Your task to perform on an android device: Go to settings Image 0: 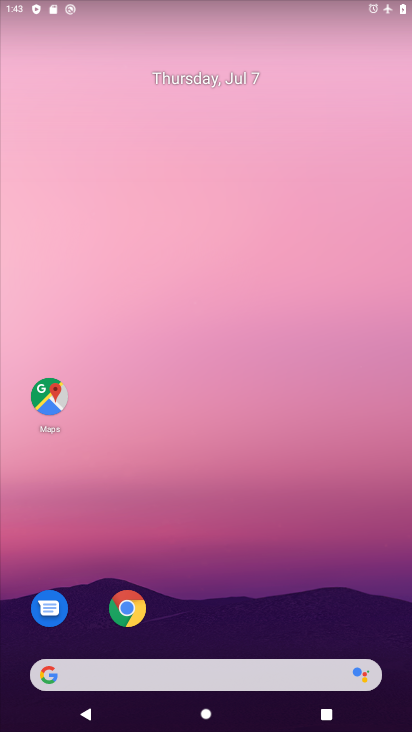
Step 0: drag from (241, 716) to (239, 127)
Your task to perform on an android device: Go to settings Image 1: 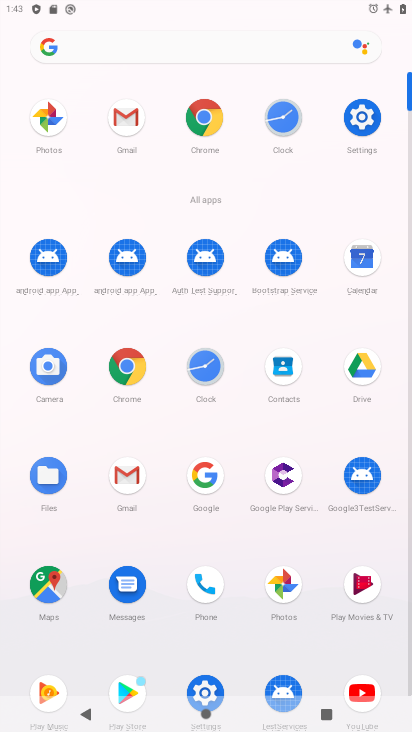
Step 1: click (356, 109)
Your task to perform on an android device: Go to settings Image 2: 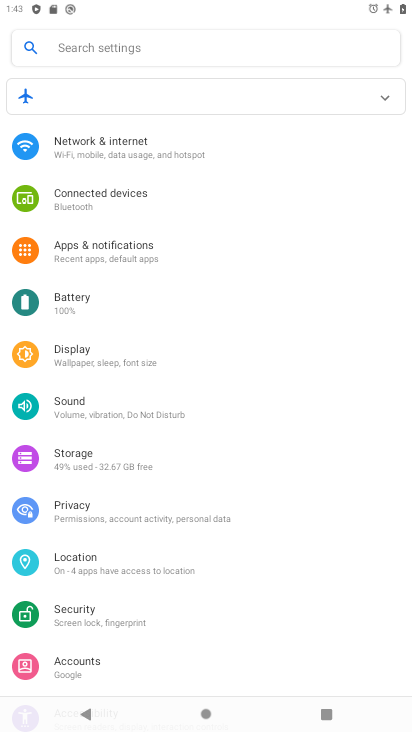
Step 2: task complete